Your task to perform on an android device: change the clock display to analog Image 0: 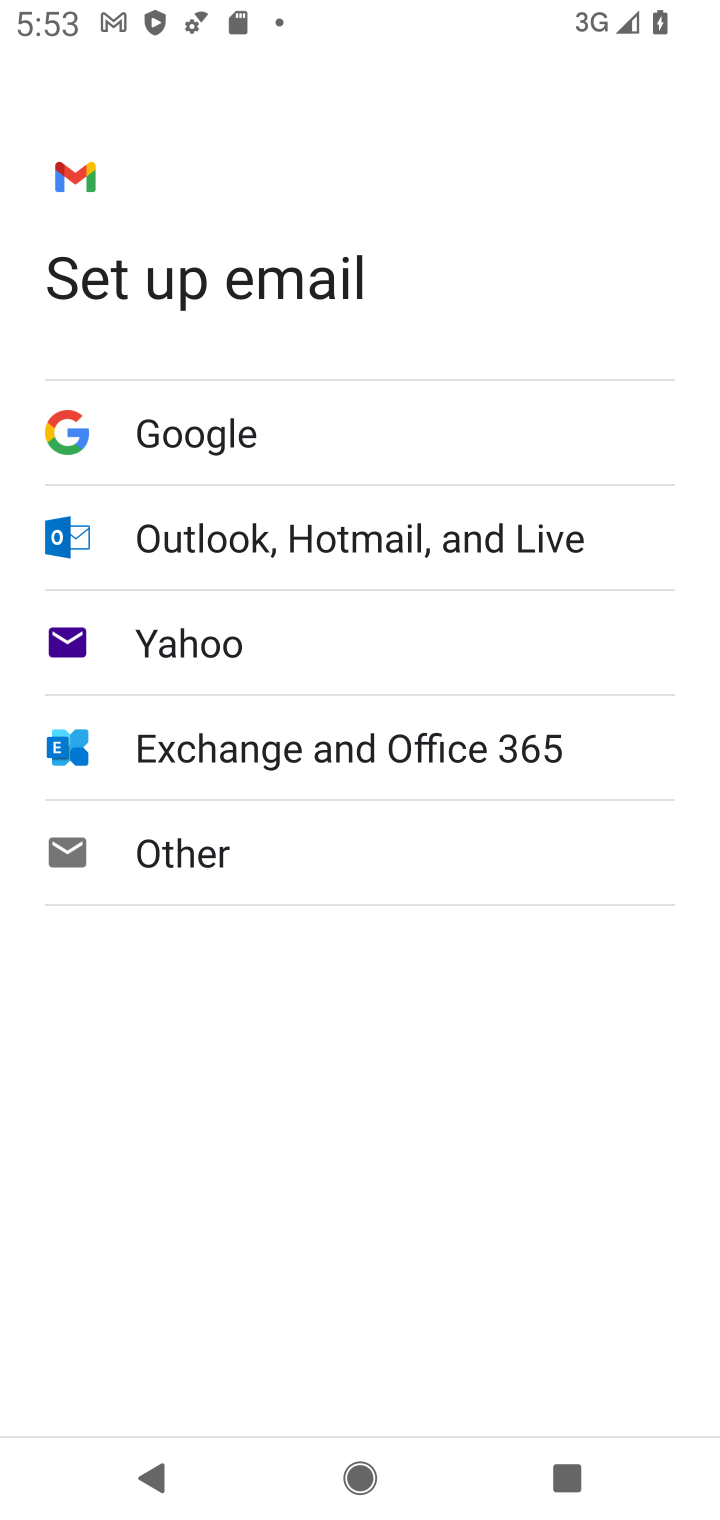
Step 0: press home button
Your task to perform on an android device: change the clock display to analog Image 1: 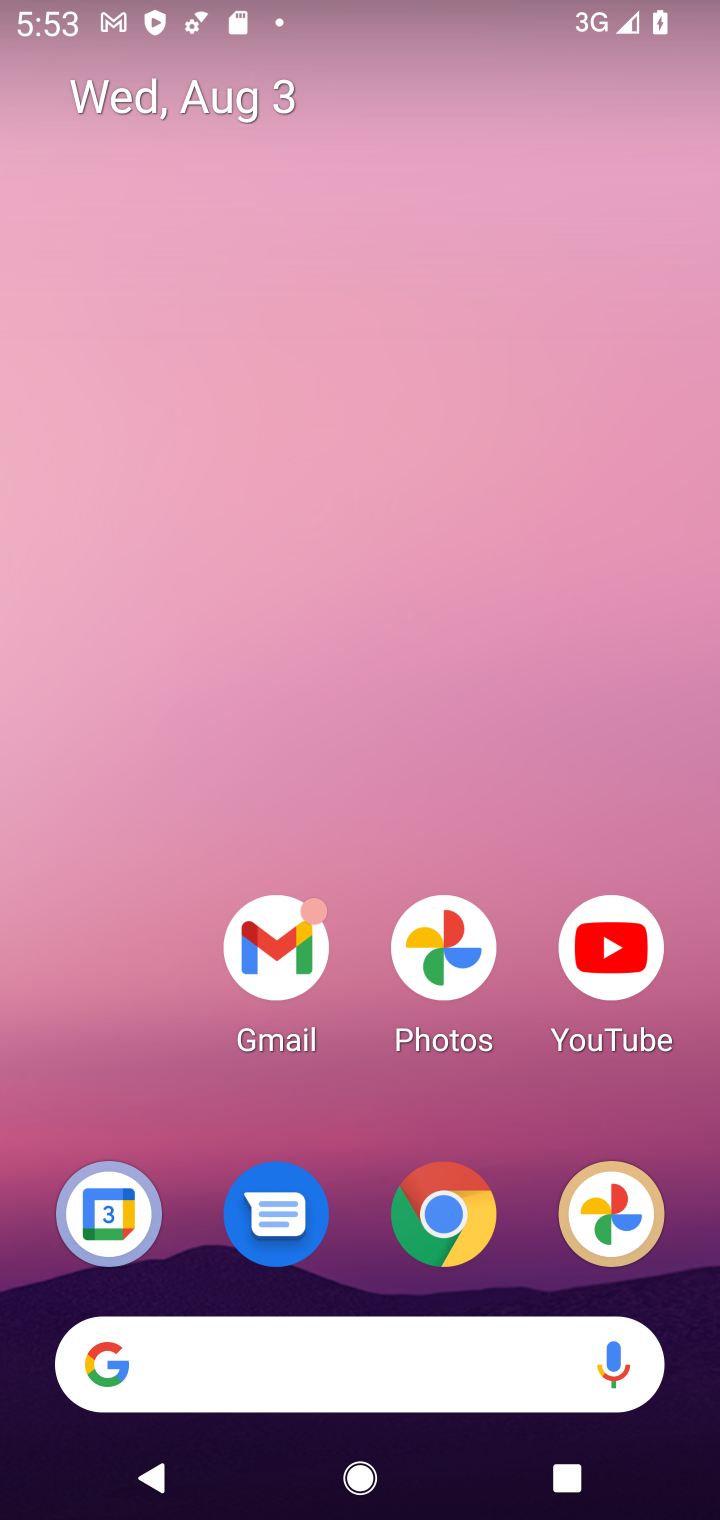
Step 1: drag from (367, 1149) to (655, 0)
Your task to perform on an android device: change the clock display to analog Image 2: 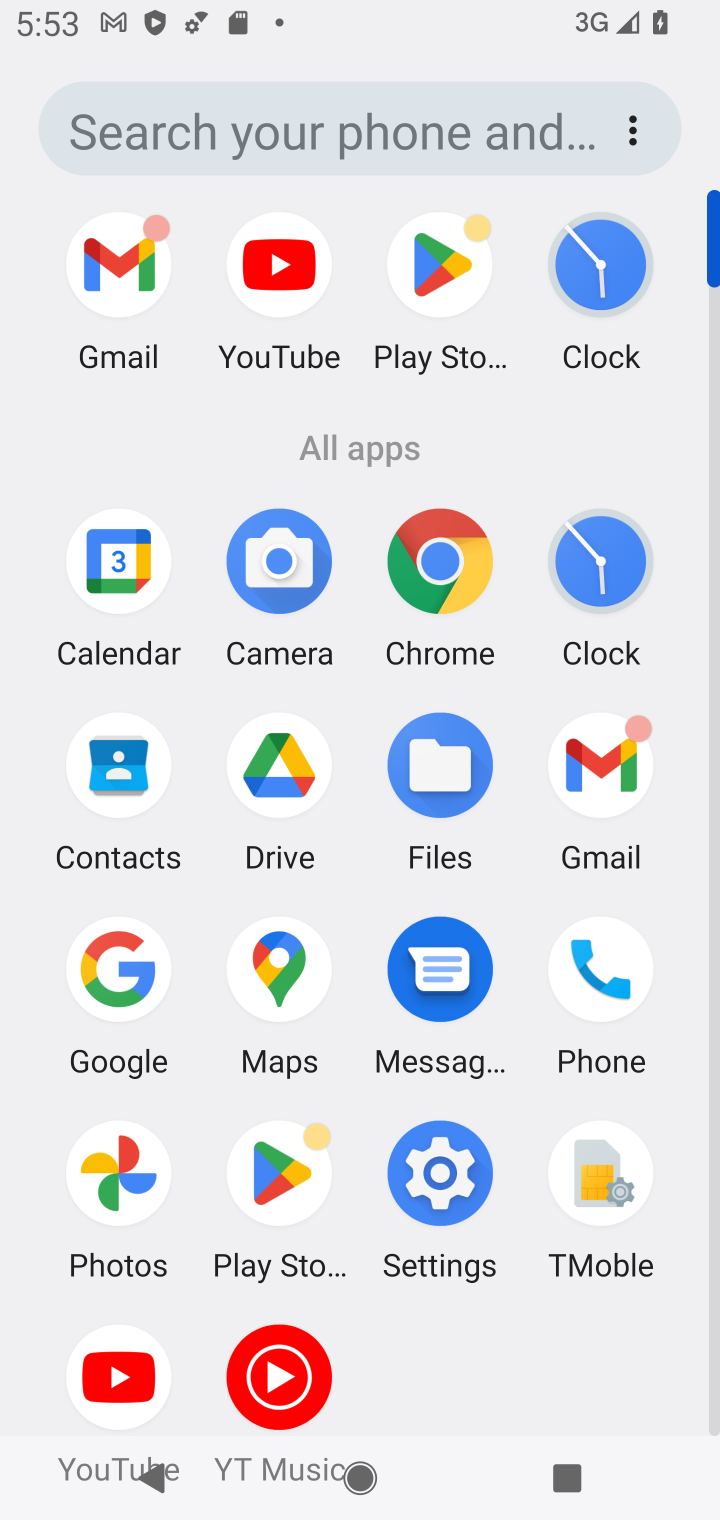
Step 2: click (608, 270)
Your task to perform on an android device: change the clock display to analog Image 3: 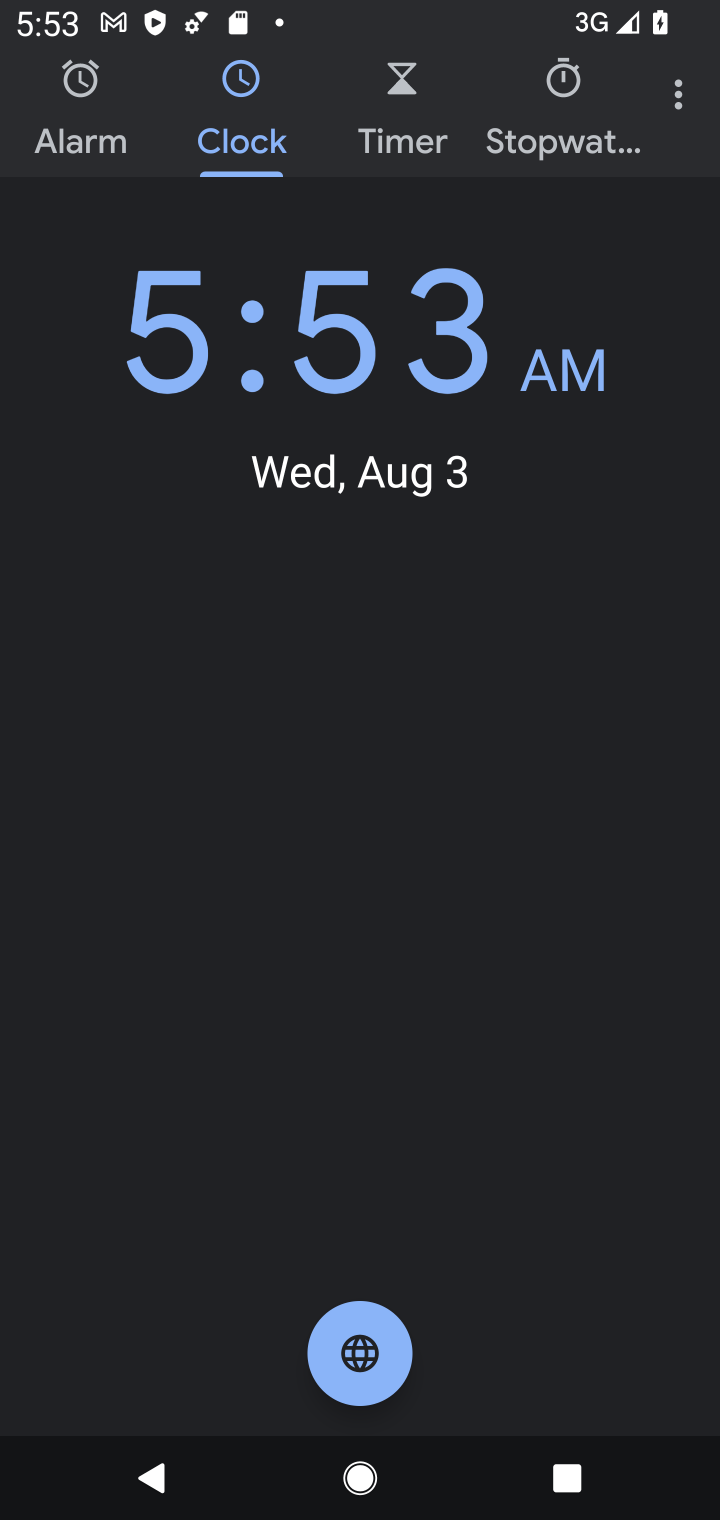
Step 3: click (675, 118)
Your task to perform on an android device: change the clock display to analog Image 4: 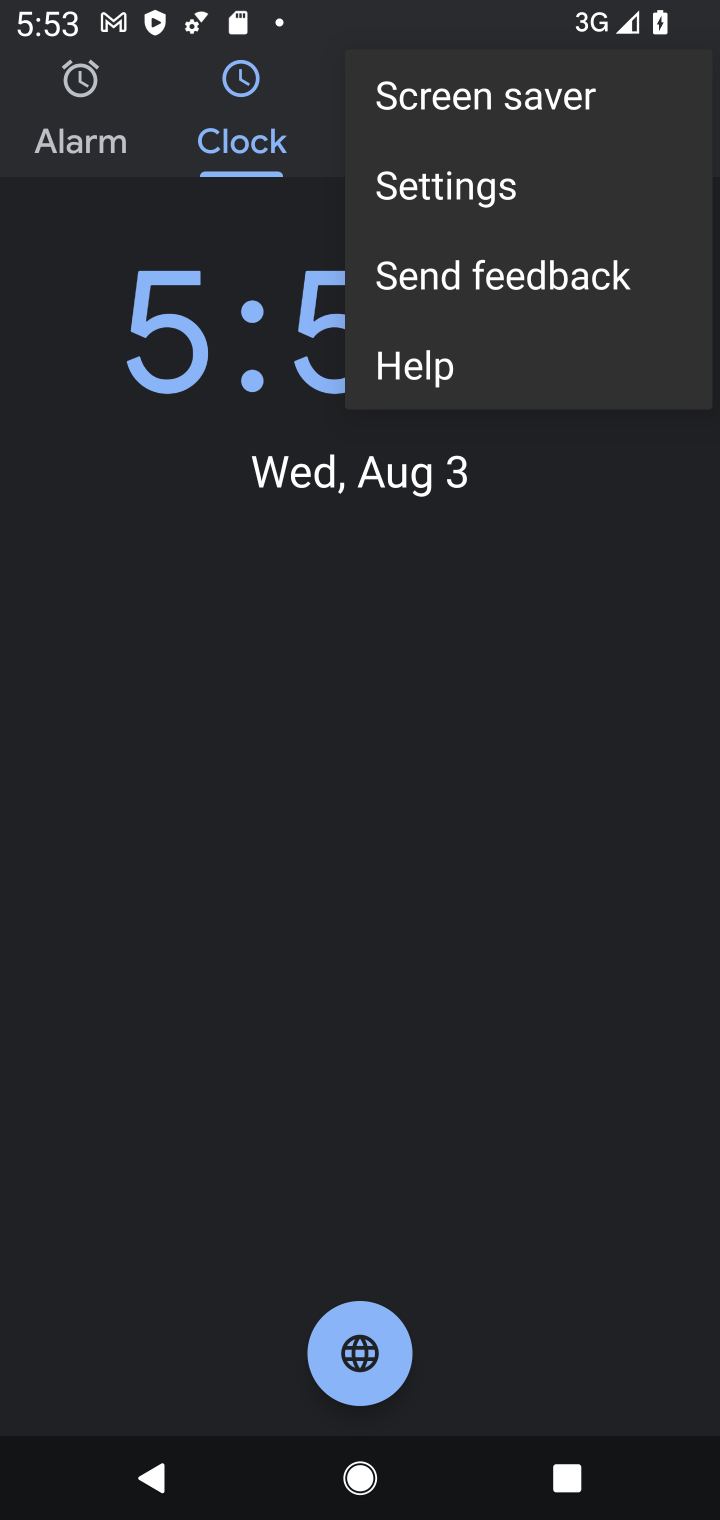
Step 4: click (486, 198)
Your task to perform on an android device: change the clock display to analog Image 5: 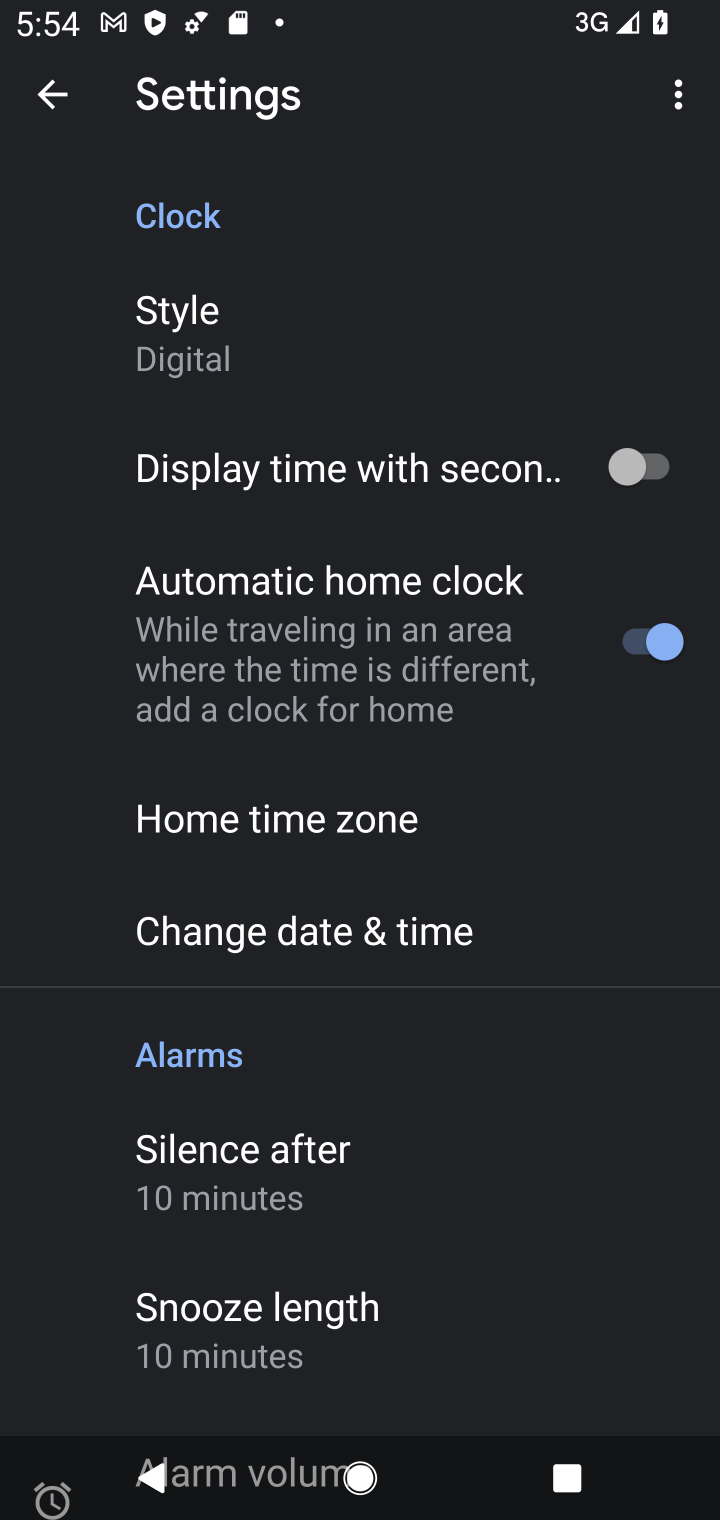
Step 5: click (265, 334)
Your task to perform on an android device: change the clock display to analog Image 6: 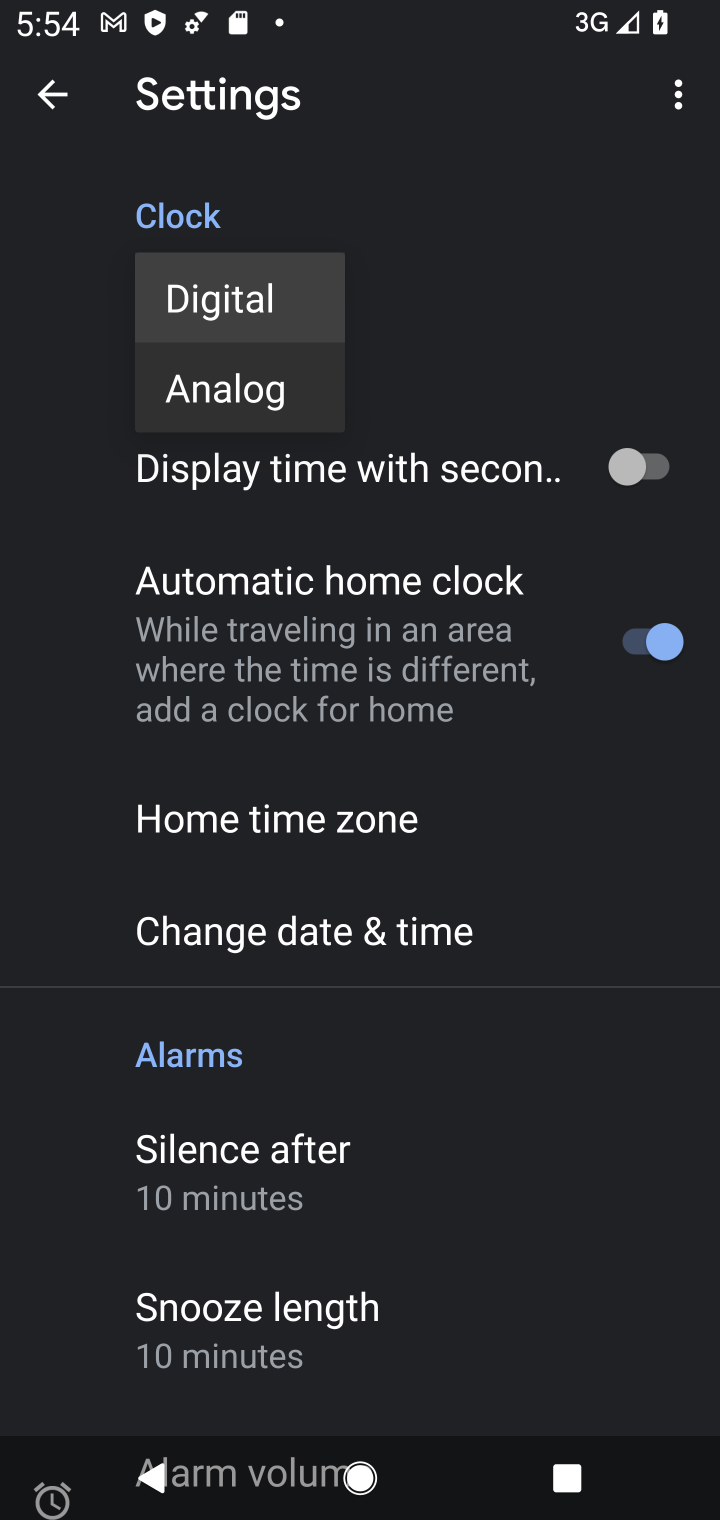
Step 6: click (237, 388)
Your task to perform on an android device: change the clock display to analog Image 7: 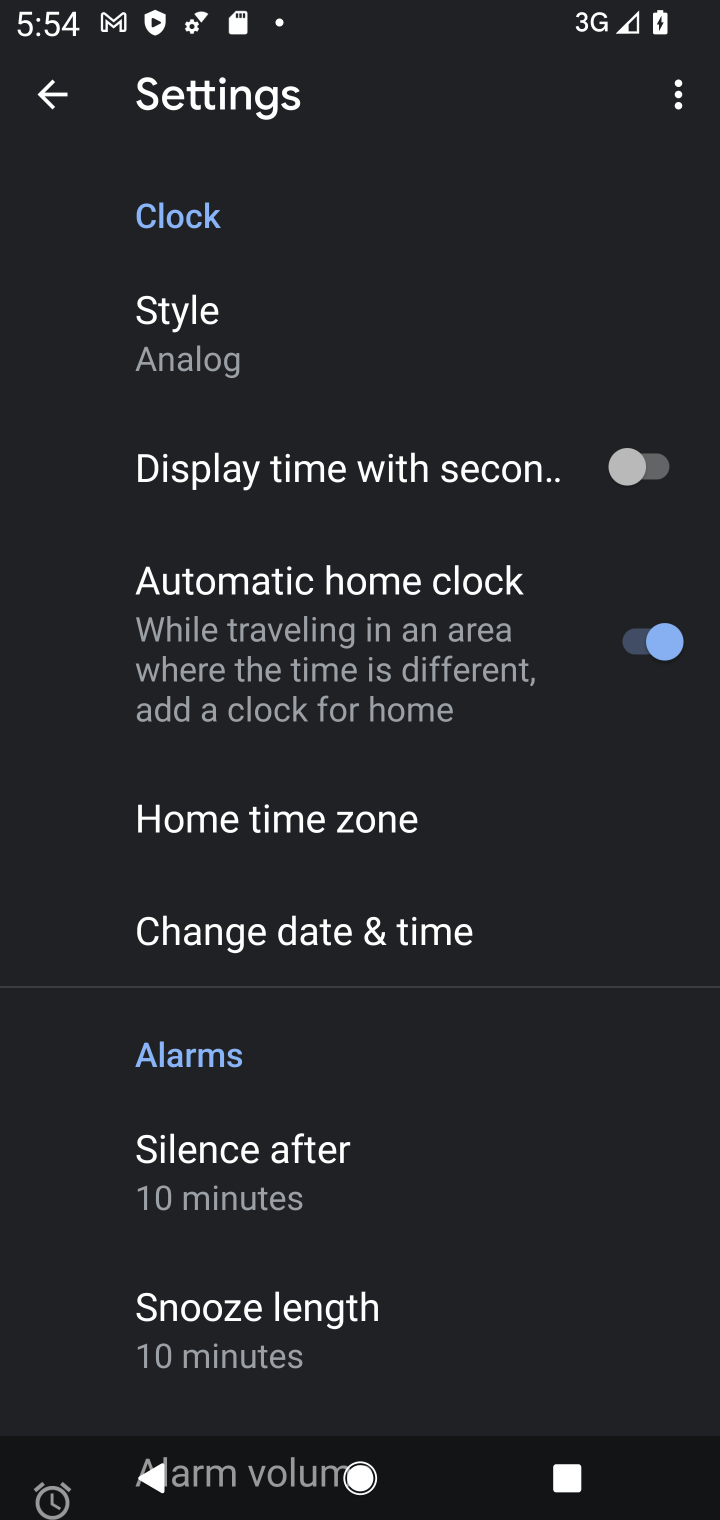
Step 7: task complete